Your task to perform on an android device: Open settings on Google Maps Image 0: 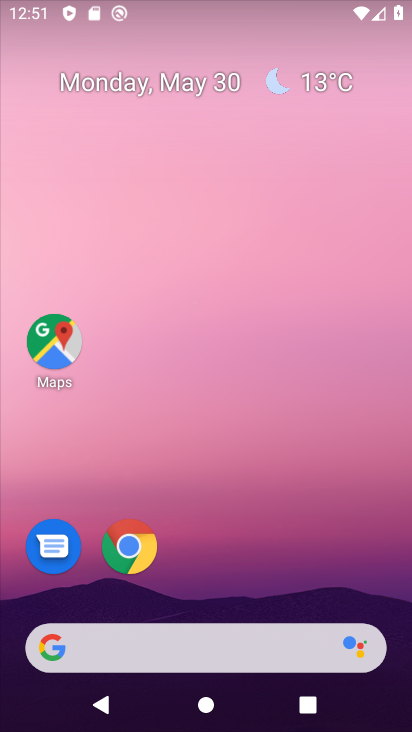
Step 0: click (306, 266)
Your task to perform on an android device: Open settings on Google Maps Image 1: 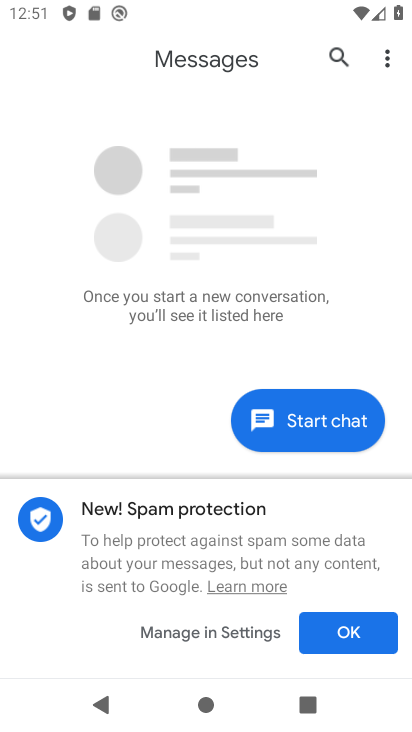
Step 1: click (327, 636)
Your task to perform on an android device: Open settings on Google Maps Image 2: 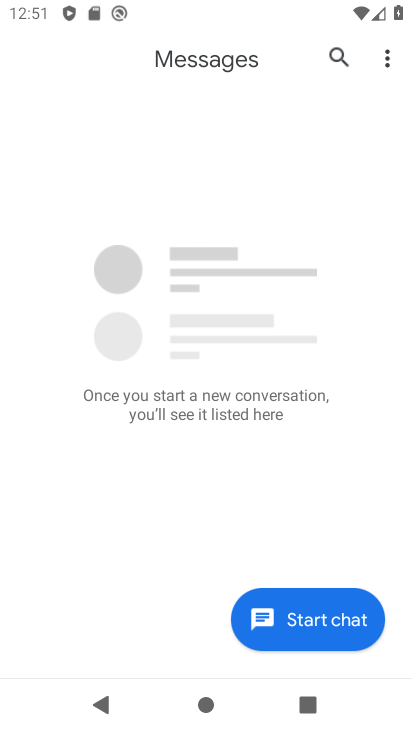
Step 2: press home button
Your task to perform on an android device: Open settings on Google Maps Image 3: 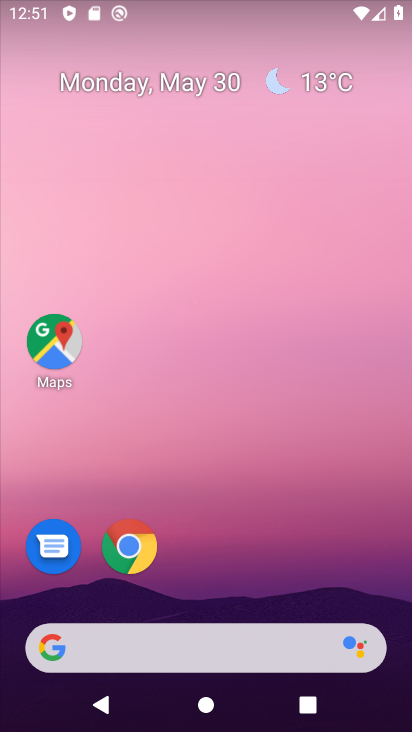
Step 3: drag from (314, 601) to (331, 104)
Your task to perform on an android device: Open settings on Google Maps Image 4: 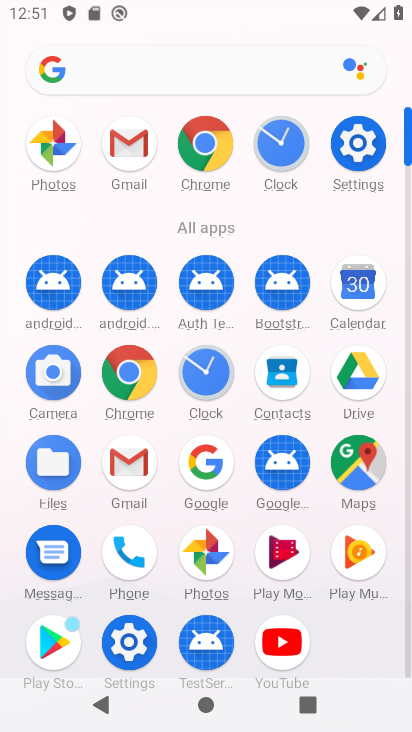
Step 4: click (358, 466)
Your task to perform on an android device: Open settings on Google Maps Image 5: 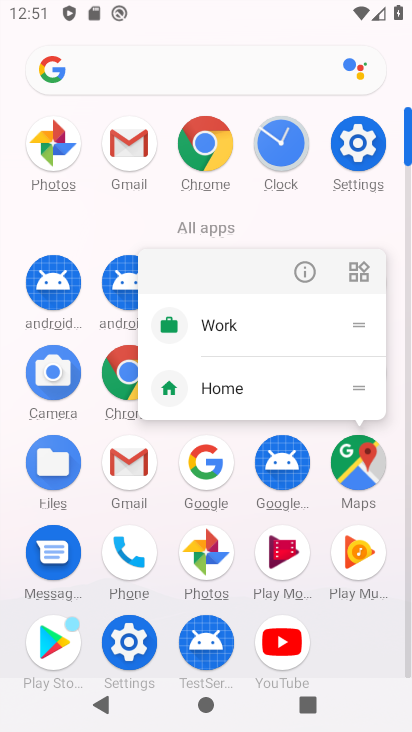
Step 5: click (359, 472)
Your task to perform on an android device: Open settings on Google Maps Image 6: 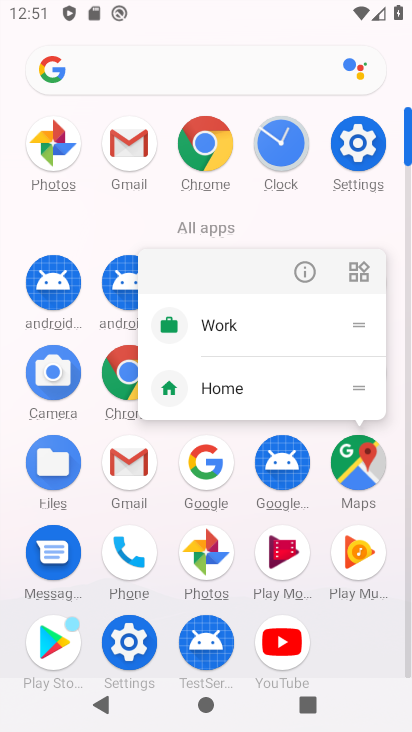
Step 6: click (359, 472)
Your task to perform on an android device: Open settings on Google Maps Image 7: 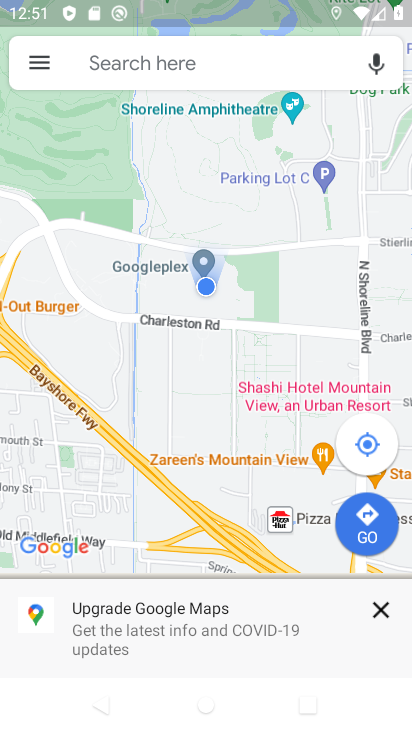
Step 7: click (40, 69)
Your task to perform on an android device: Open settings on Google Maps Image 8: 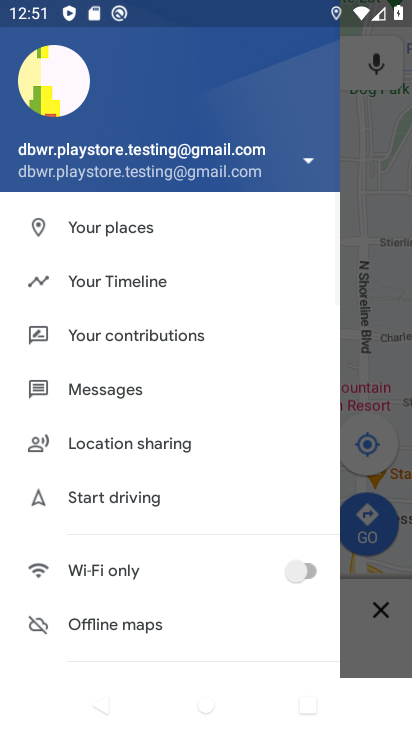
Step 8: drag from (228, 424) to (234, 34)
Your task to perform on an android device: Open settings on Google Maps Image 9: 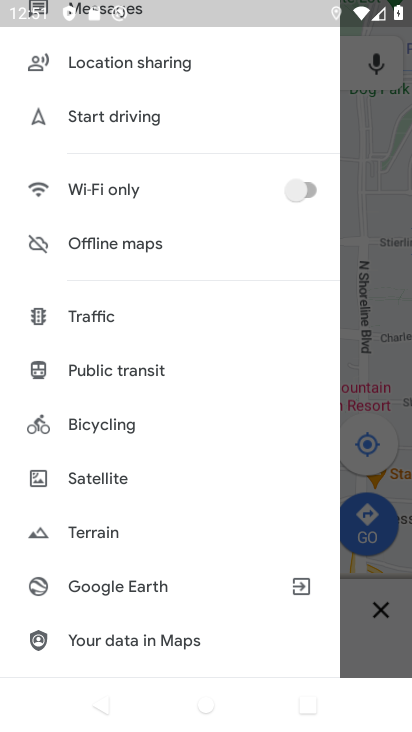
Step 9: drag from (272, 513) to (276, 145)
Your task to perform on an android device: Open settings on Google Maps Image 10: 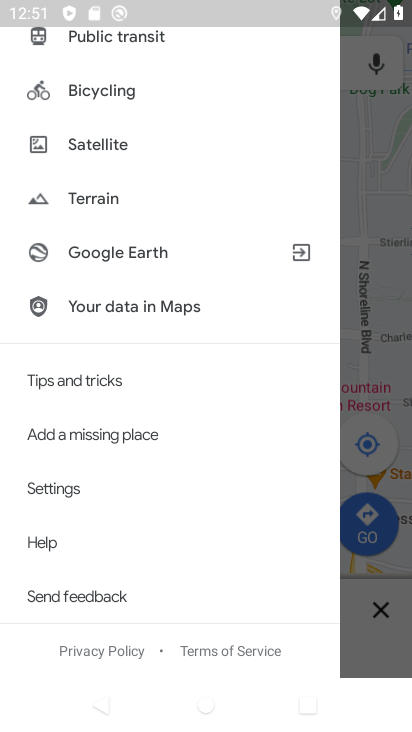
Step 10: click (57, 491)
Your task to perform on an android device: Open settings on Google Maps Image 11: 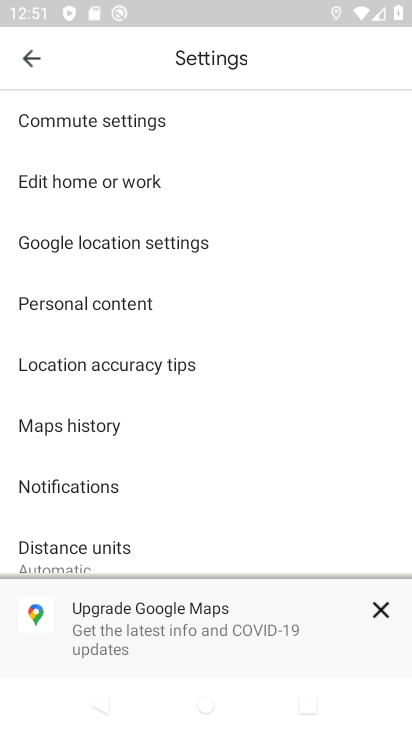
Step 11: task complete